Your task to perform on an android device: Open the map Image 0: 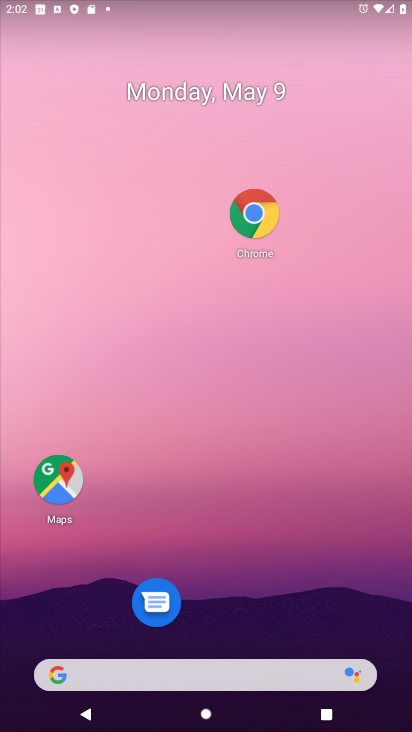
Step 0: drag from (271, 628) to (263, 197)
Your task to perform on an android device: Open the map Image 1: 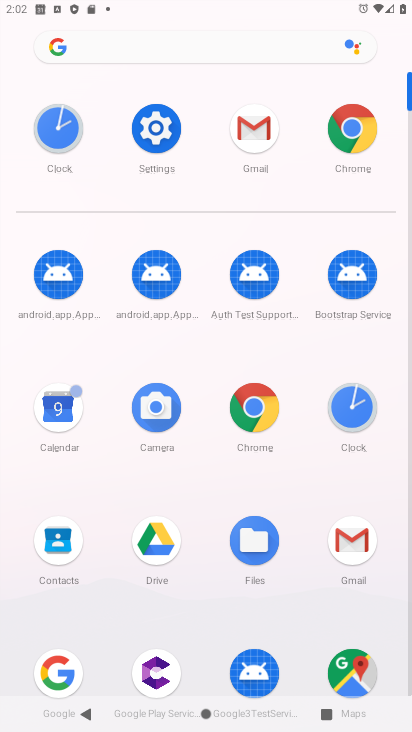
Step 1: click (331, 683)
Your task to perform on an android device: Open the map Image 2: 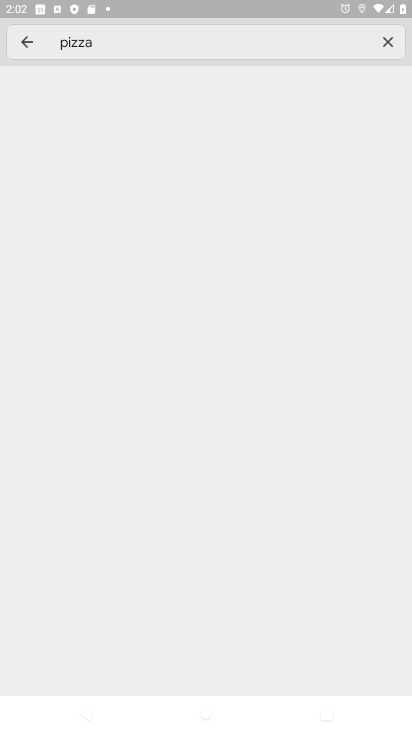
Step 2: task complete